Your task to perform on an android device: Open privacy settings Image 0: 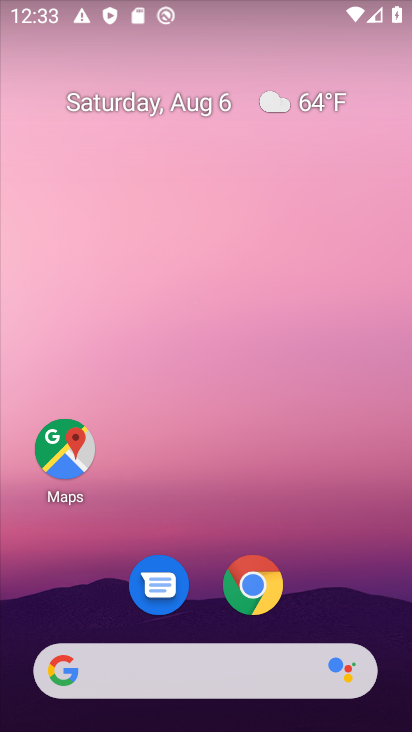
Step 0: drag from (328, 572) to (329, 0)
Your task to perform on an android device: Open privacy settings Image 1: 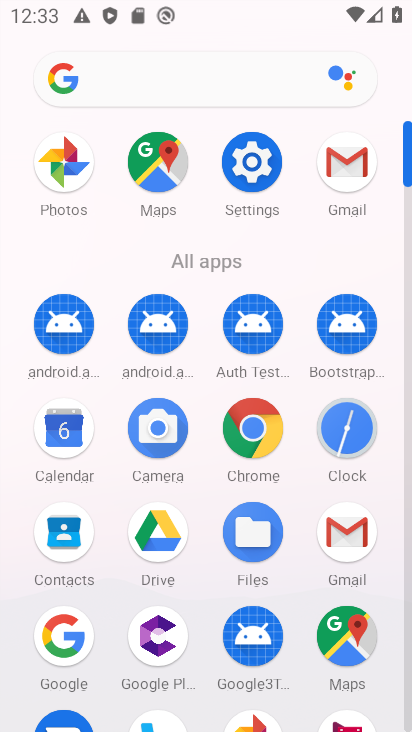
Step 1: click (258, 155)
Your task to perform on an android device: Open privacy settings Image 2: 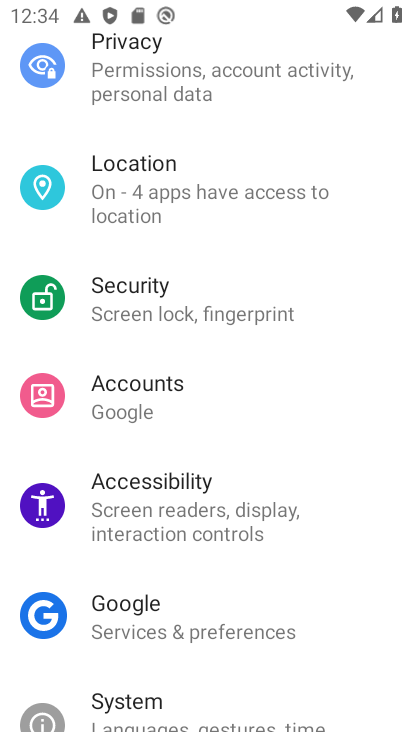
Step 2: click (197, 73)
Your task to perform on an android device: Open privacy settings Image 3: 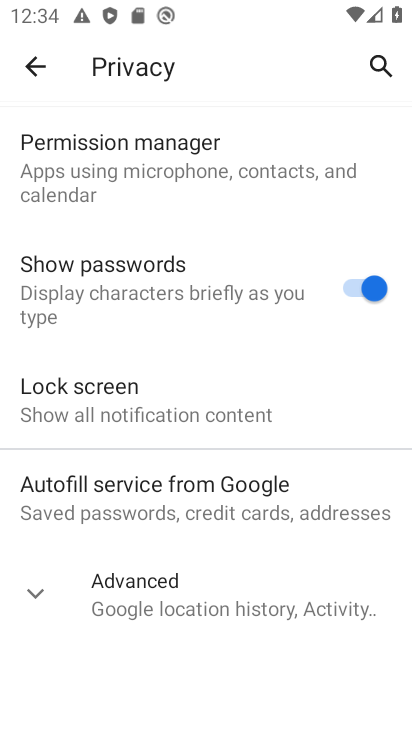
Step 3: task complete